Your task to perform on an android device: set default search engine in the chrome app Image 0: 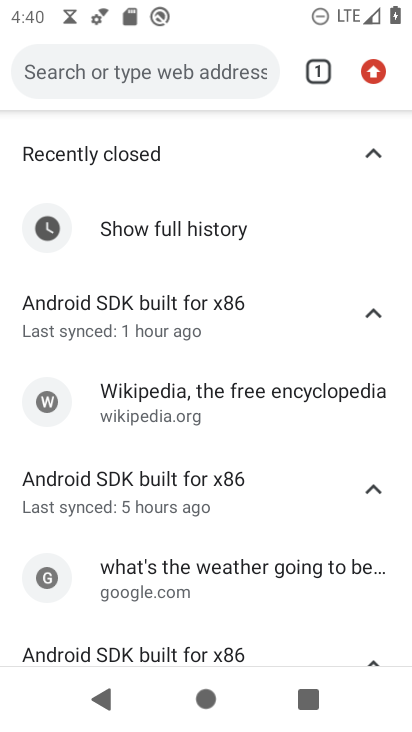
Step 0: click (359, 76)
Your task to perform on an android device: set default search engine in the chrome app Image 1: 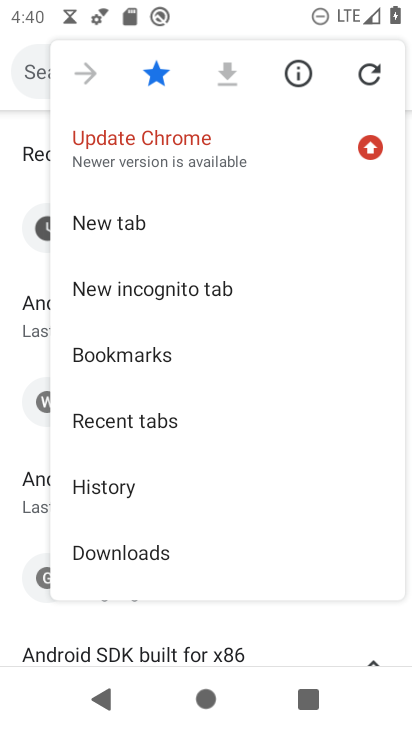
Step 1: drag from (180, 369) to (158, 286)
Your task to perform on an android device: set default search engine in the chrome app Image 2: 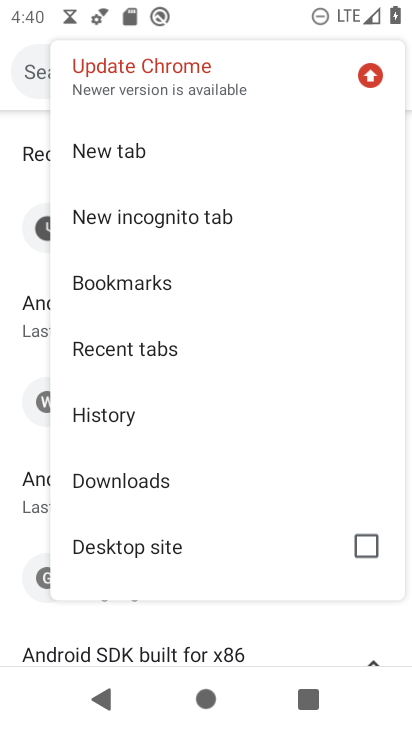
Step 2: drag from (165, 355) to (144, 276)
Your task to perform on an android device: set default search engine in the chrome app Image 3: 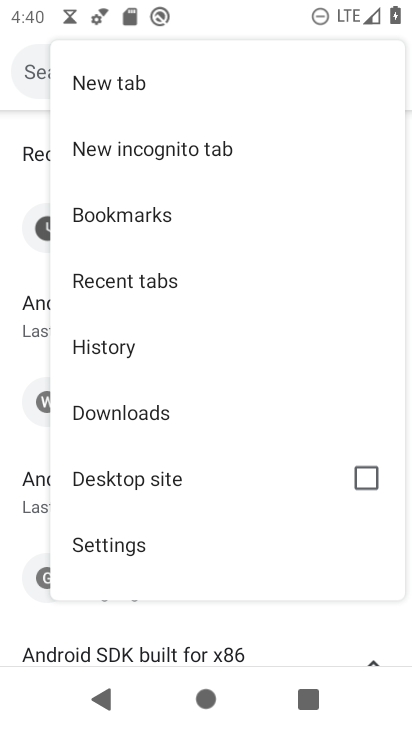
Step 3: click (160, 524)
Your task to perform on an android device: set default search engine in the chrome app Image 4: 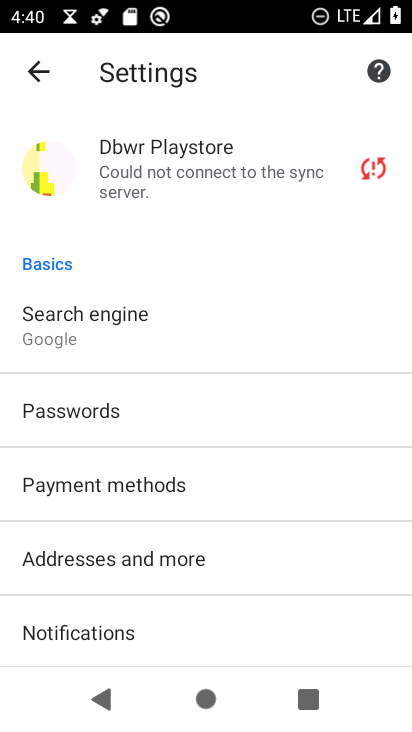
Step 4: click (88, 332)
Your task to perform on an android device: set default search engine in the chrome app Image 5: 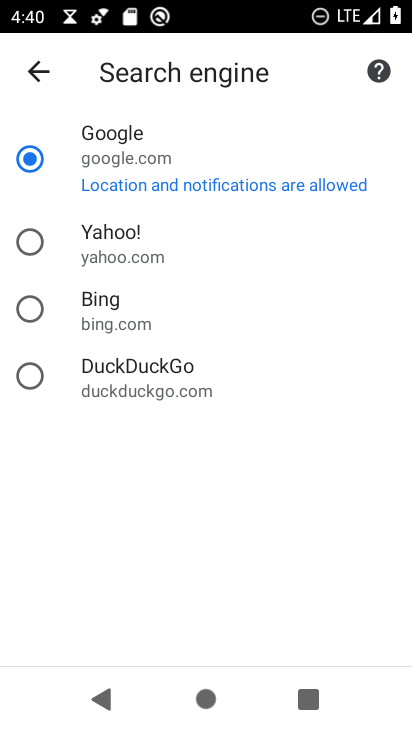
Step 5: click (91, 255)
Your task to perform on an android device: set default search engine in the chrome app Image 6: 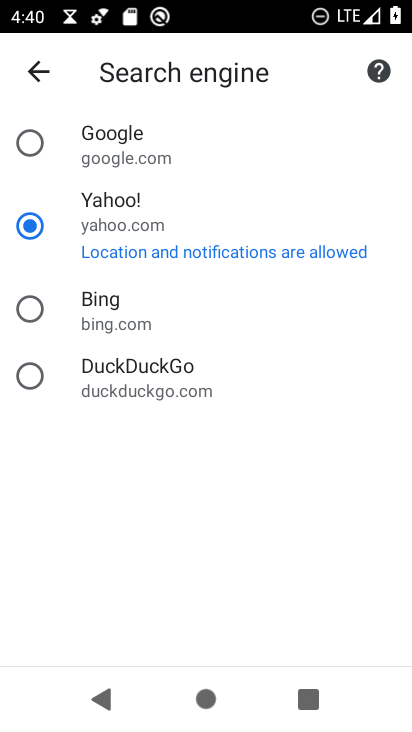
Step 6: task complete